Your task to perform on an android device: Open ESPN.com Image 0: 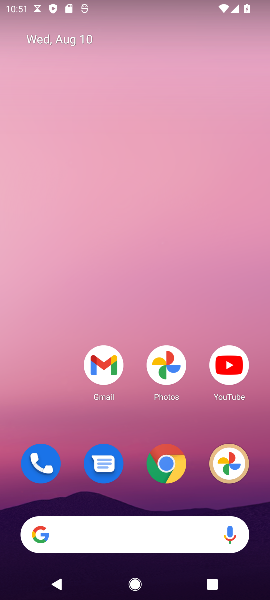
Step 0: click (71, 524)
Your task to perform on an android device: Open ESPN.com Image 1: 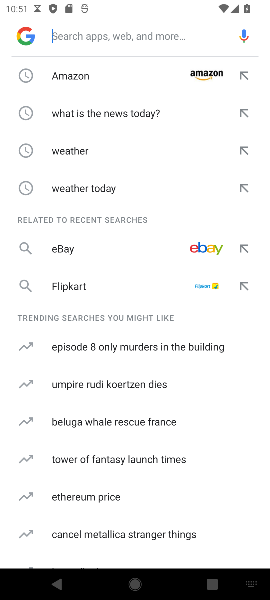
Step 1: type "ESPN.com"
Your task to perform on an android device: Open ESPN.com Image 2: 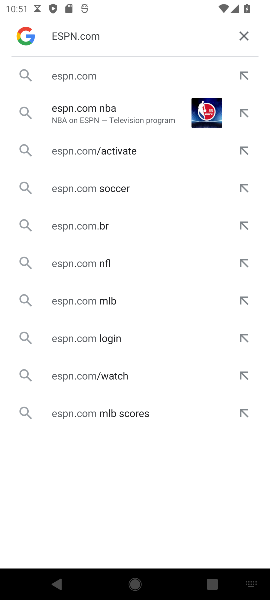
Step 2: click (81, 78)
Your task to perform on an android device: Open ESPN.com Image 3: 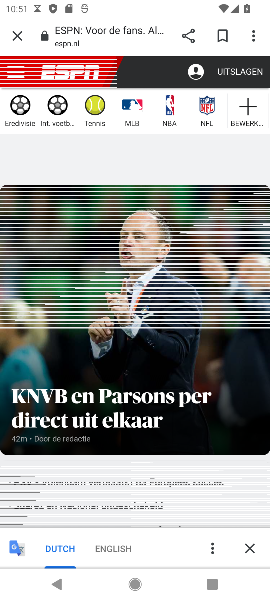
Step 3: task complete